Your task to perform on an android device: Go to location settings Image 0: 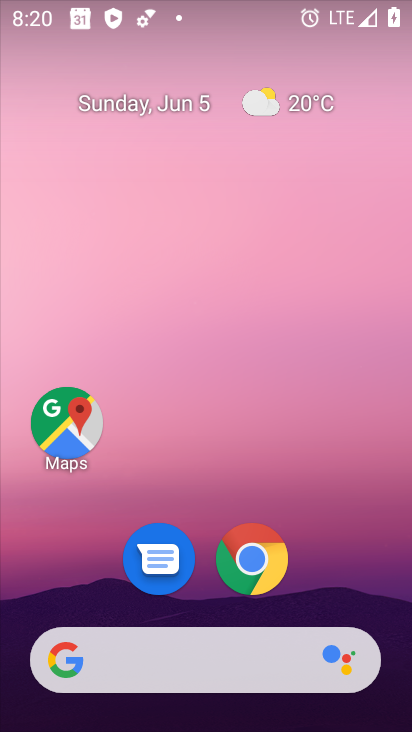
Step 0: drag from (371, 509) to (362, 34)
Your task to perform on an android device: Go to location settings Image 1: 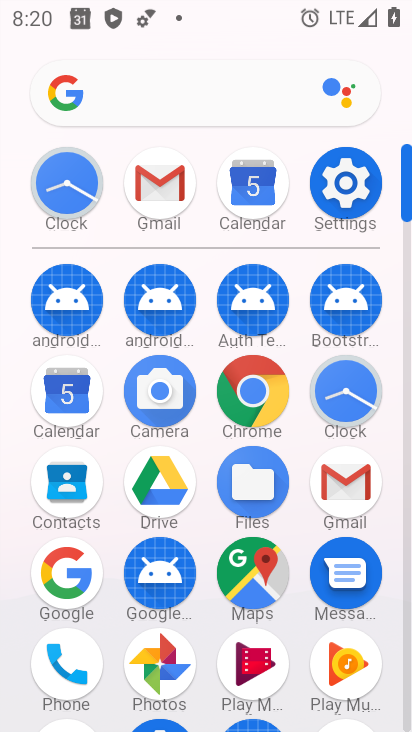
Step 1: click (363, 179)
Your task to perform on an android device: Go to location settings Image 2: 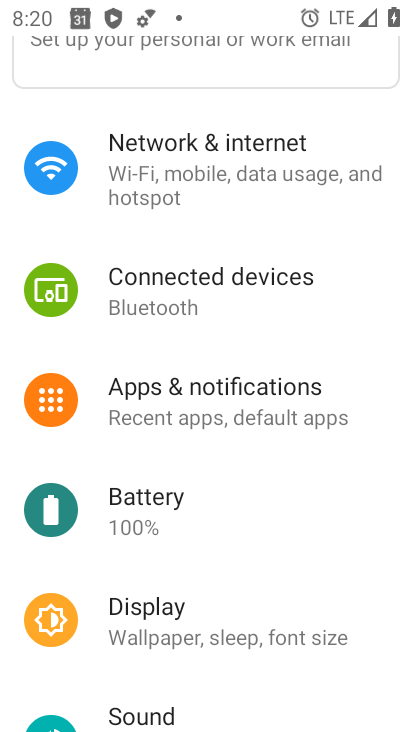
Step 2: drag from (263, 581) to (370, 91)
Your task to perform on an android device: Go to location settings Image 3: 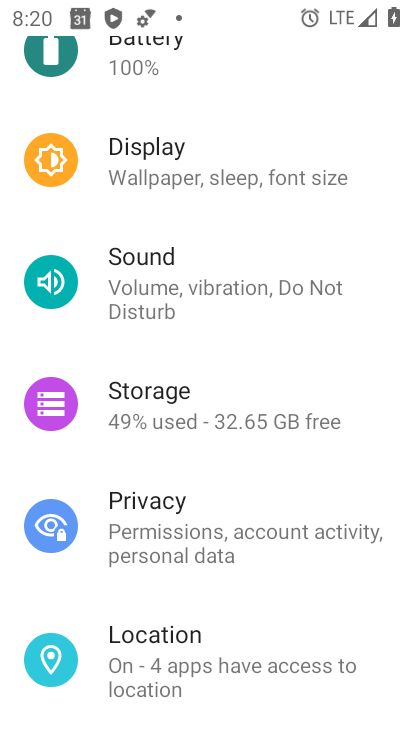
Step 3: click (175, 651)
Your task to perform on an android device: Go to location settings Image 4: 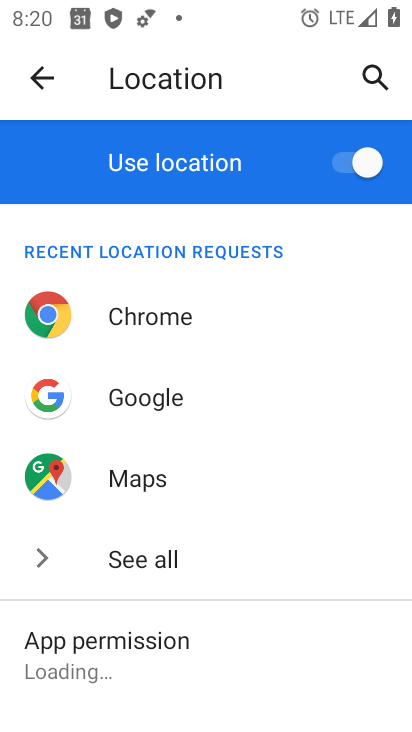
Step 4: task complete